Your task to perform on an android device: turn on javascript in the chrome app Image 0: 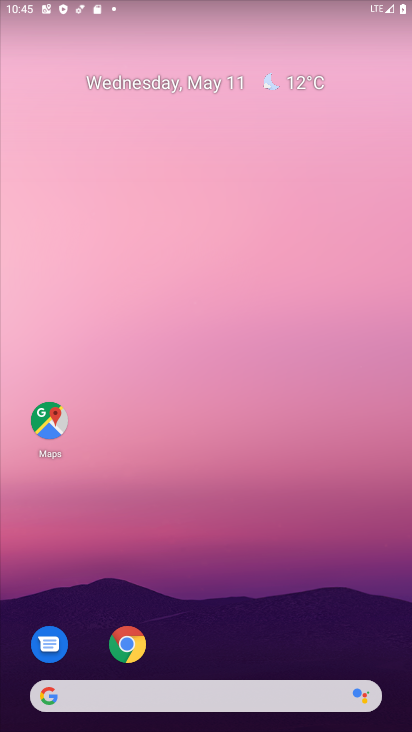
Step 0: click (135, 635)
Your task to perform on an android device: turn on javascript in the chrome app Image 1: 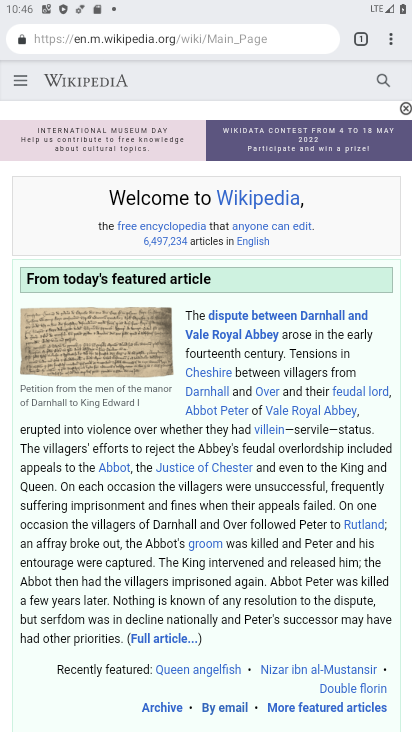
Step 1: click (390, 42)
Your task to perform on an android device: turn on javascript in the chrome app Image 2: 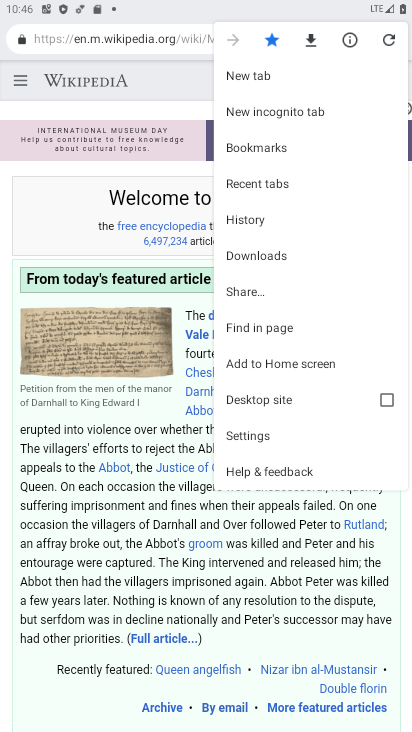
Step 2: click (246, 424)
Your task to perform on an android device: turn on javascript in the chrome app Image 3: 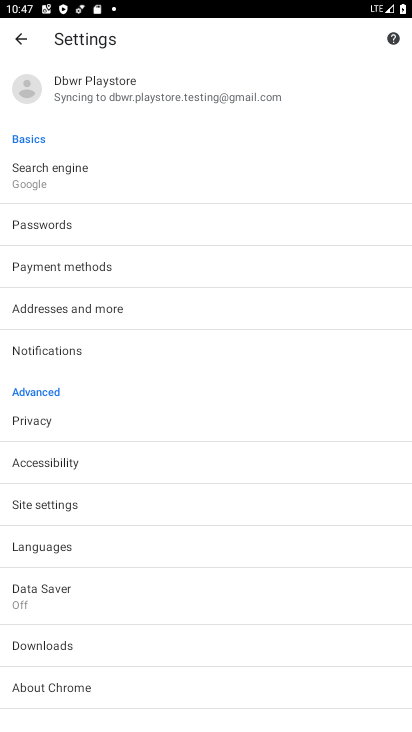
Step 3: click (142, 510)
Your task to perform on an android device: turn on javascript in the chrome app Image 4: 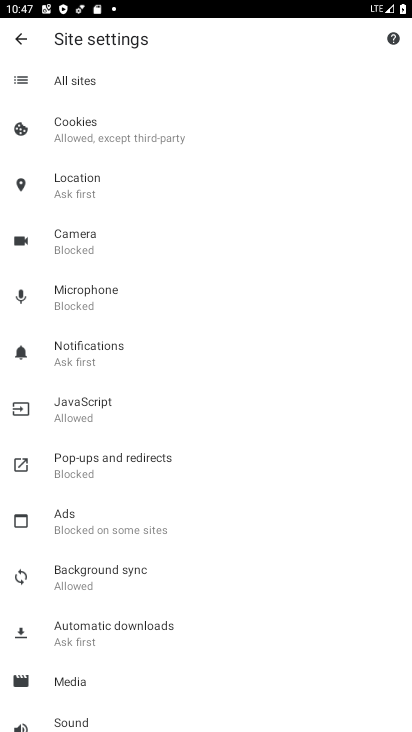
Step 4: click (139, 420)
Your task to perform on an android device: turn on javascript in the chrome app Image 5: 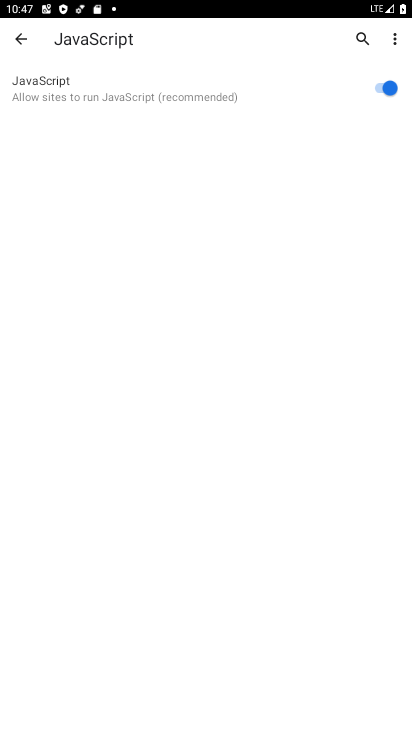
Step 5: task complete